Your task to perform on an android device: stop showing notifications on the lock screen Image 0: 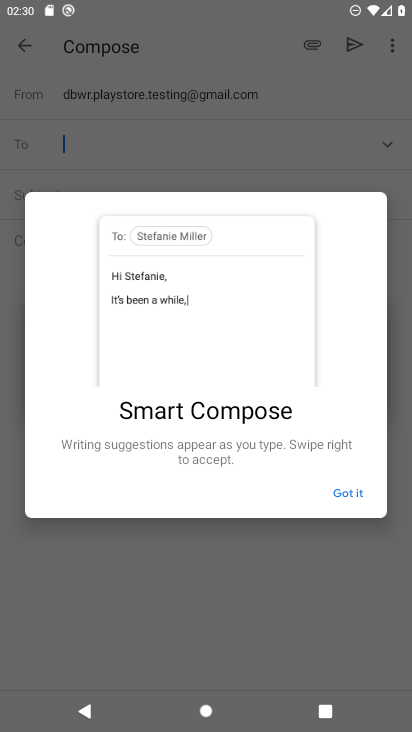
Step 0: click (335, 502)
Your task to perform on an android device: stop showing notifications on the lock screen Image 1: 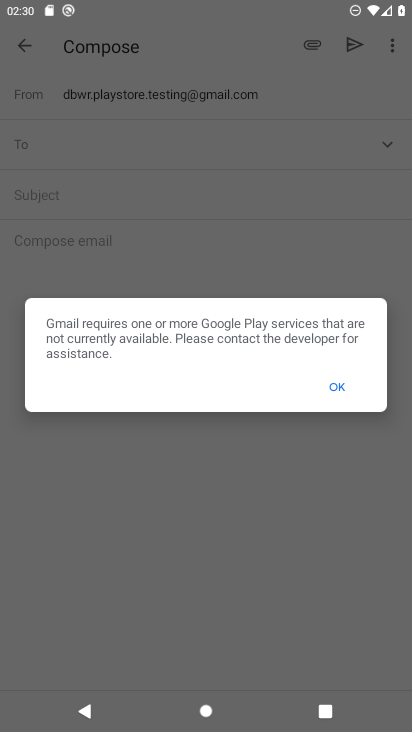
Step 1: press home button
Your task to perform on an android device: stop showing notifications on the lock screen Image 2: 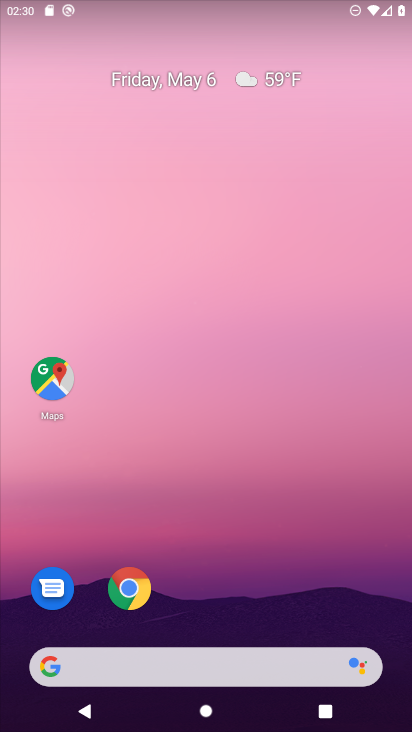
Step 2: drag from (181, 628) to (177, 157)
Your task to perform on an android device: stop showing notifications on the lock screen Image 3: 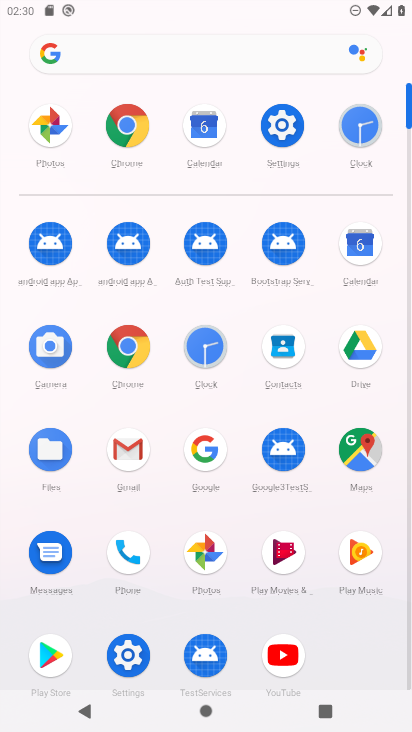
Step 3: click (297, 140)
Your task to perform on an android device: stop showing notifications on the lock screen Image 4: 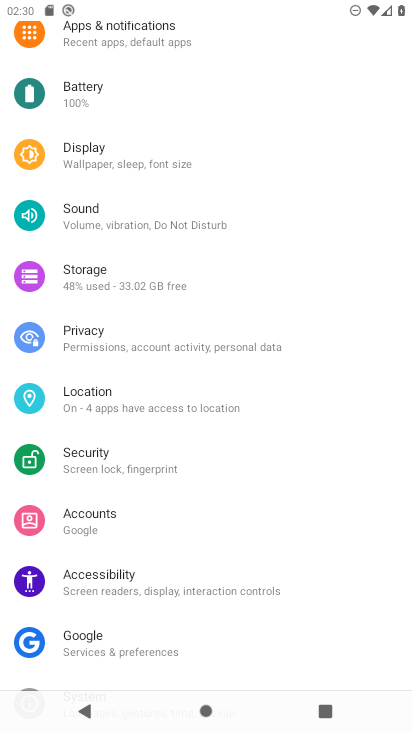
Step 4: click (181, 45)
Your task to perform on an android device: stop showing notifications on the lock screen Image 5: 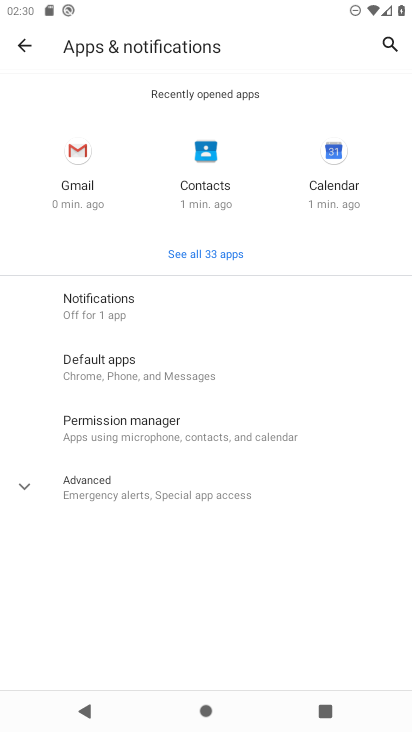
Step 5: click (115, 317)
Your task to perform on an android device: stop showing notifications on the lock screen Image 6: 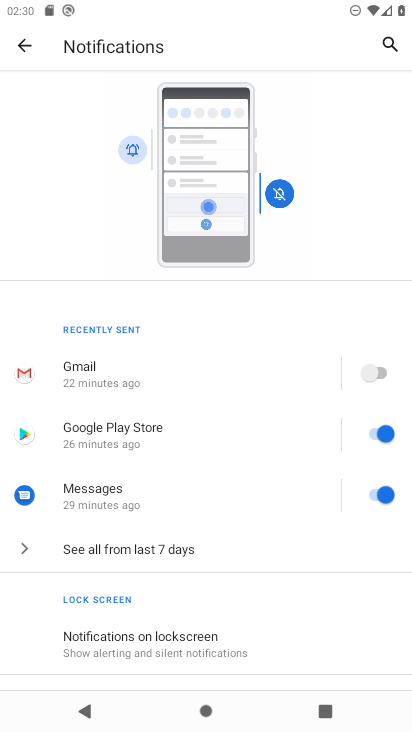
Step 6: click (134, 633)
Your task to perform on an android device: stop showing notifications on the lock screen Image 7: 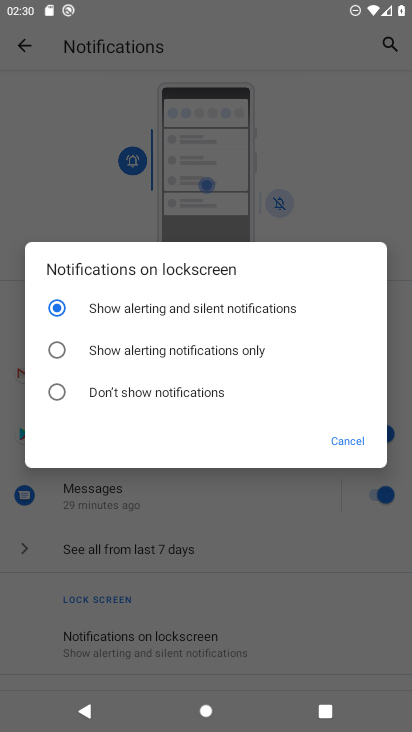
Step 7: click (84, 384)
Your task to perform on an android device: stop showing notifications on the lock screen Image 8: 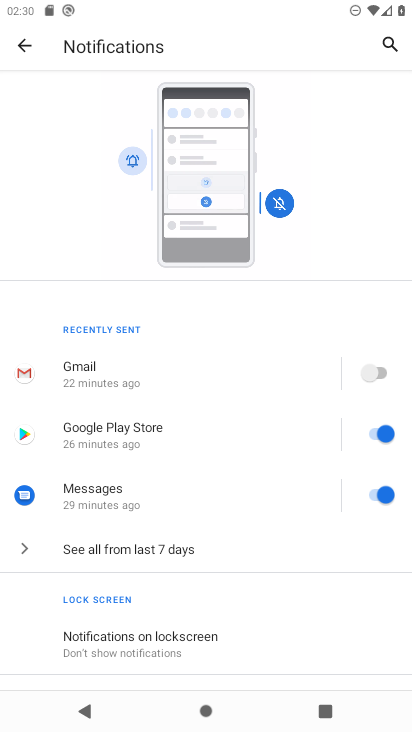
Step 8: task complete